Your task to perform on an android device: delete location history Image 0: 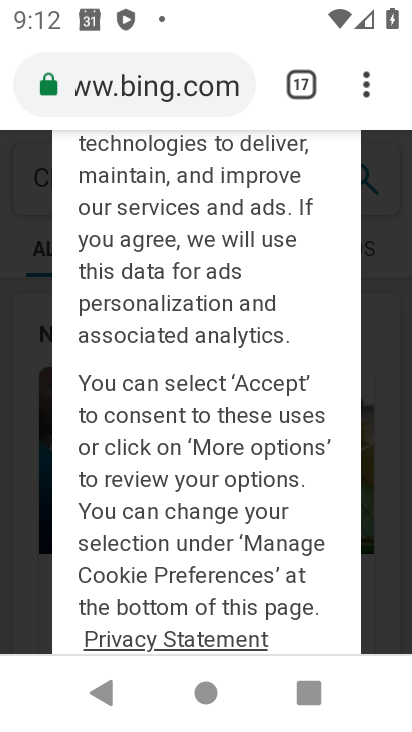
Step 0: click (357, 86)
Your task to perform on an android device: delete location history Image 1: 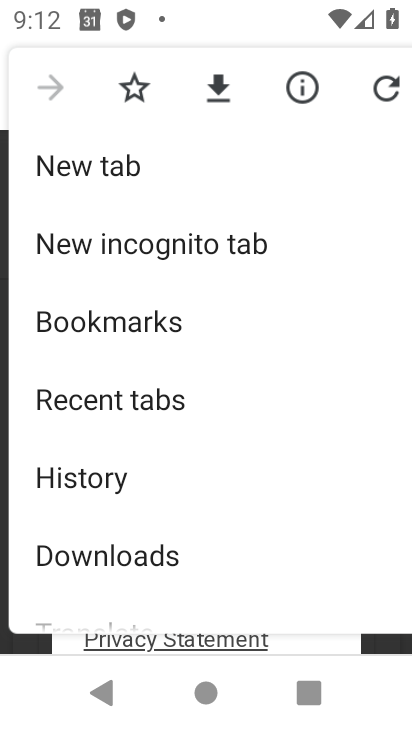
Step 1: click (133, 471)
Your task to perform on an android device: delete location history Image 2: 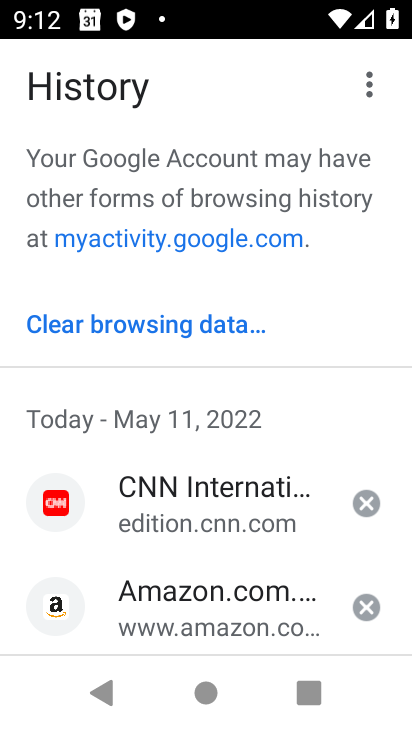
Step 2: click (145, 324)
Your task to perform on an android device: delete location history Image 3: 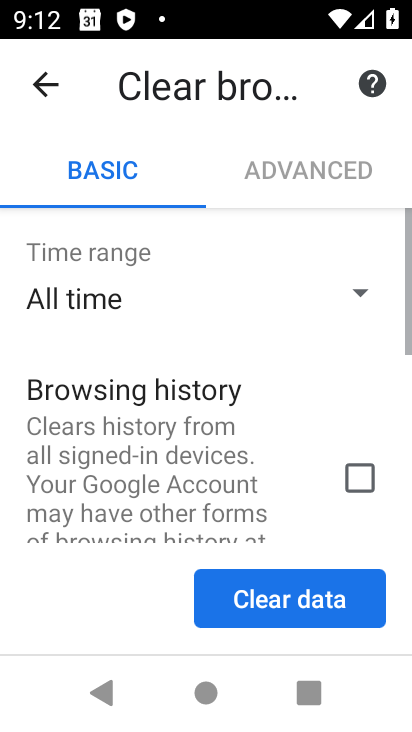
Step 3: click (302, 612)
Your task to perform on an android device: delete location history Image 4: 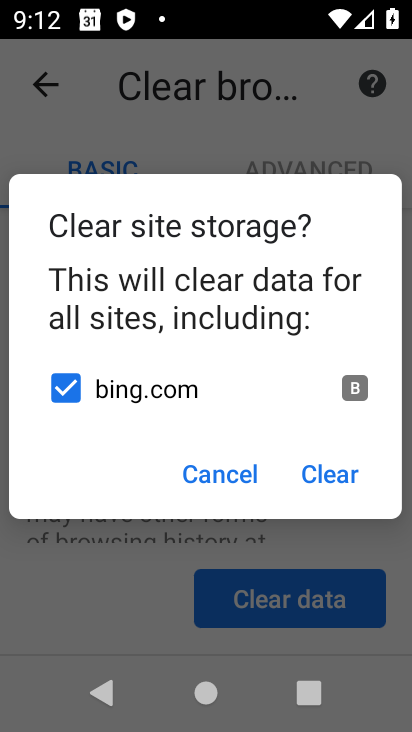
Step 4: click (373, 473)
Your task to perform on an android device: delete location history Image 5: 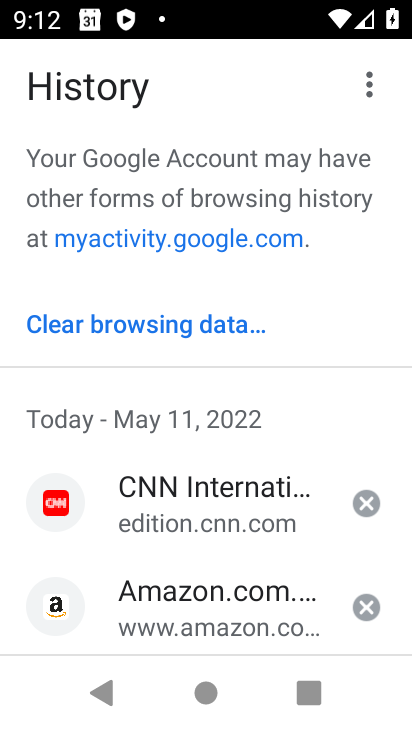
Step 5: click (128, 319)
Your task to perform on an android device: delete location history Image 6: 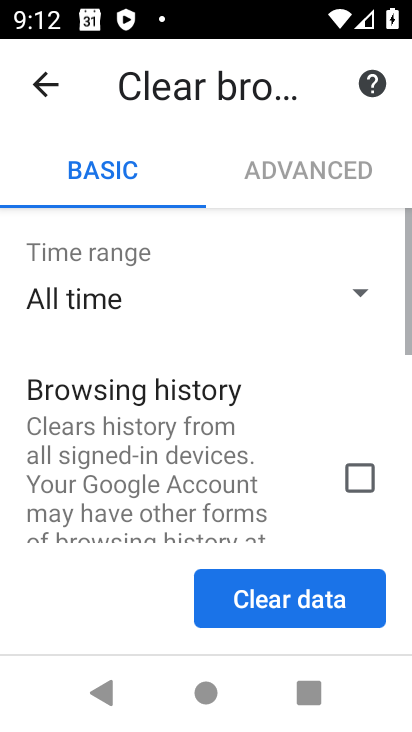
Step 6: click (357, 489)
Your task to perform on an android device: delete location history Image 7: 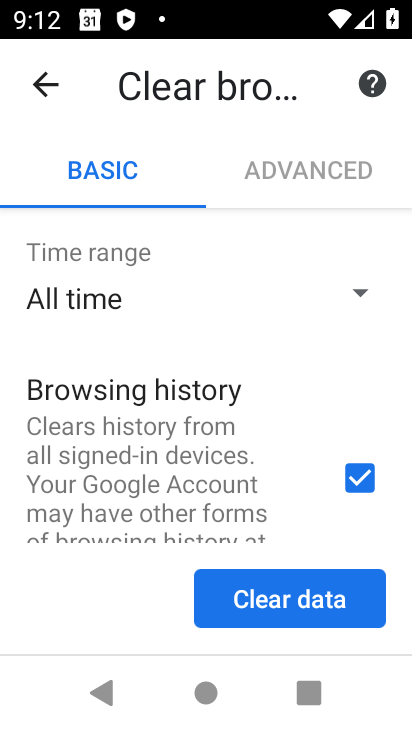
Step 7: click (294, 610)
Your task to perform on an android device: delete location history Image 8: 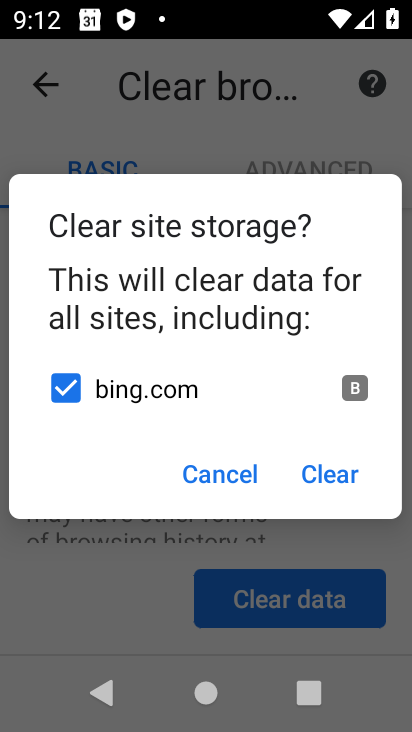
Step 8: click (322, 462)
Your task to perform on an android device: delete location history Image 9: 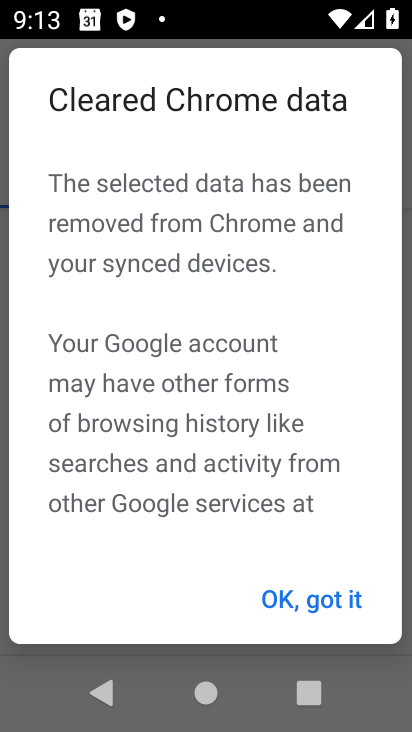
Step 9: click (300, 597)
Your task to perform on an android device: delete location history Image 10: 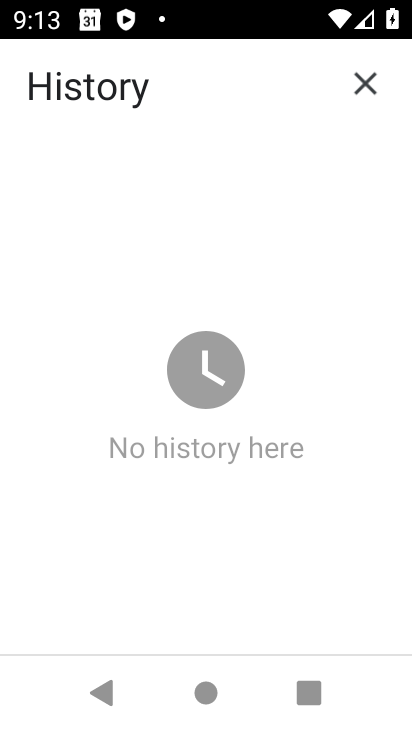
Step 10: task complete